Your task to perform on an android device: Open location settings Image 0: 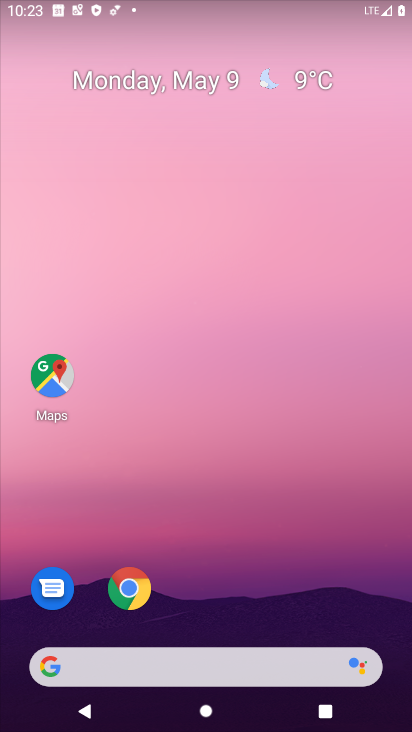
Step 0: press home button
Your task to perform on an android device: Open location settings Image 1: 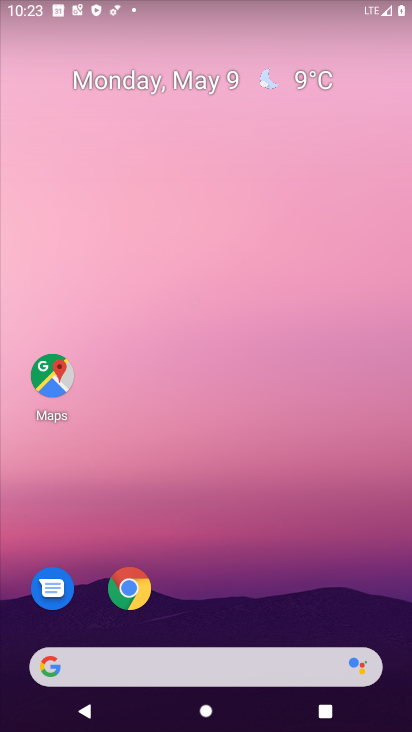
Step 1: drag from (194, 674) to (297, 137)
Your task to perform on an android device: Open location settings Image 2: 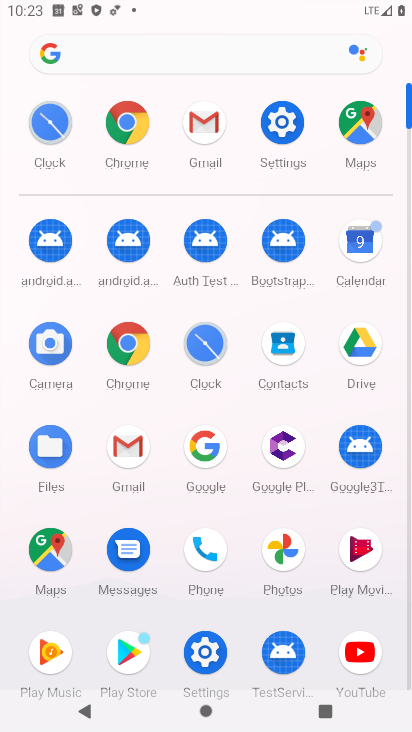
Step 2: click (287, 131)
Your task to perform on an android device: Open location settings Image 3: 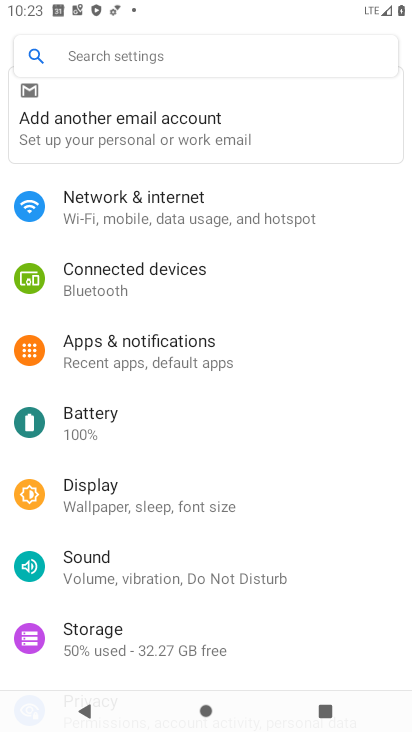
Step 3: drag from (194, 573) to (284, 327)
Your task to perform on an android device: Open location settings Image 4: 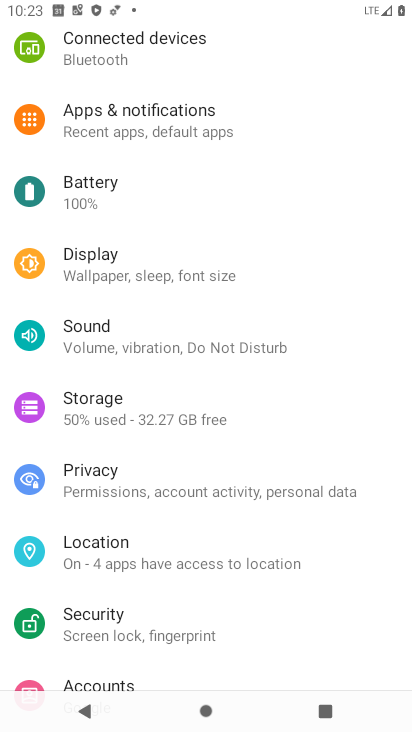
Step 4: click (134, 557)
Your task to perform on an android device: Open location settings Image 5: 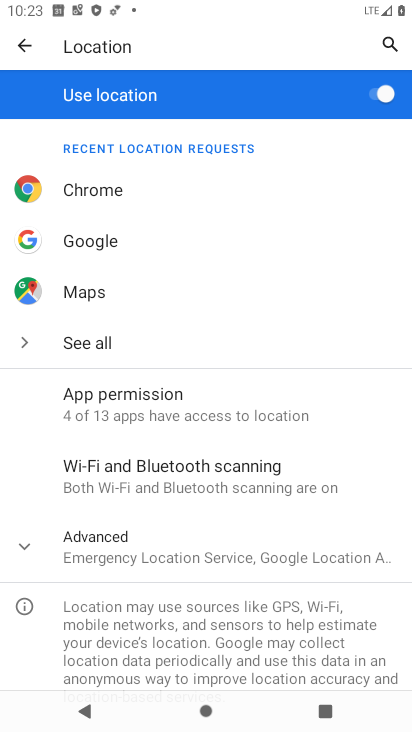
Step 5: task complete